Your task to perform on an android device: turn on priority inbox in the gmail app Image 0: 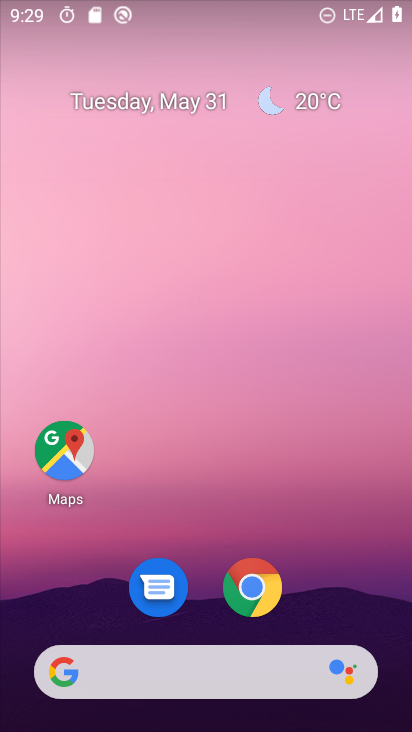
Step 0: drag from (205, 630) to (257, 189)
Your task to perform on an android device: turn on priority inbox in the gmail app Image 1: 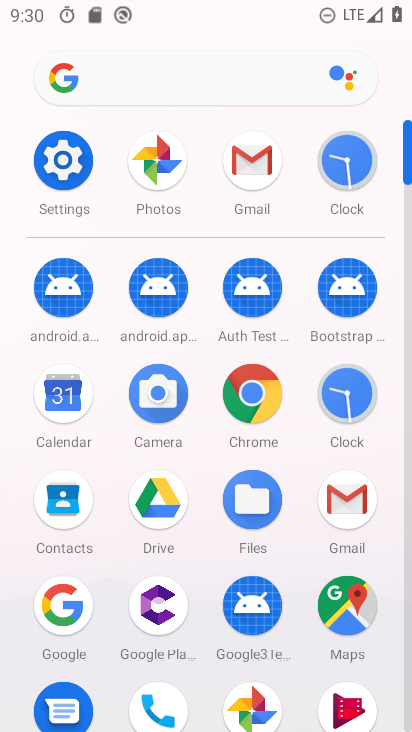
Step 1: click (268, 143)
Your task to perform on an android device: turn on priority inbox in the gmail app Image 2: 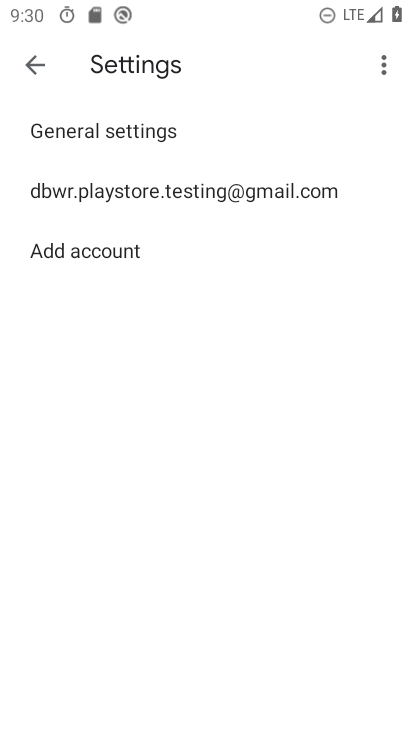
Step 2: click (37, 71)
Your task to perform on an android device: turn on priority inbox in the gmail app Image 3: 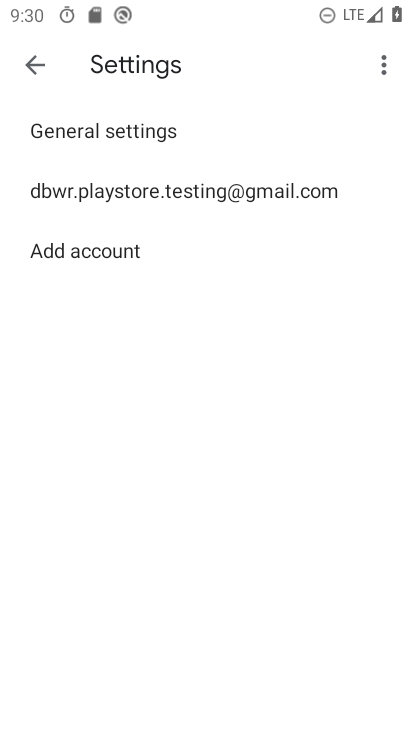
Step 3: click (37, 71)
Your task to perform on an android device: turn on priority inbox in the gmail app Image 4: 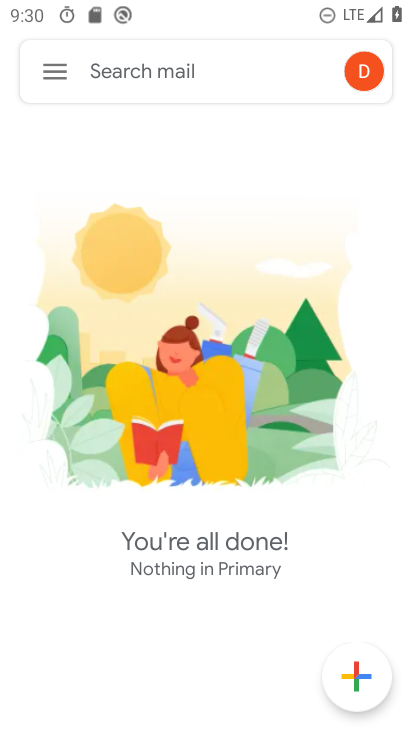
Step 4: click (55, 82)
Your task to perform on an android device: turn on priority inbox in the gmail app Image 5: 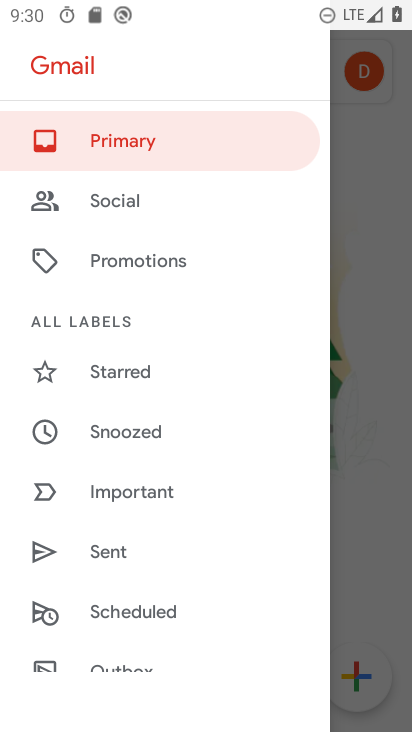
Step 5: drag from (99, 667) to (149, 196)
Your task to perform on an android device: turn on priority inbox in the gmail app Image 6: 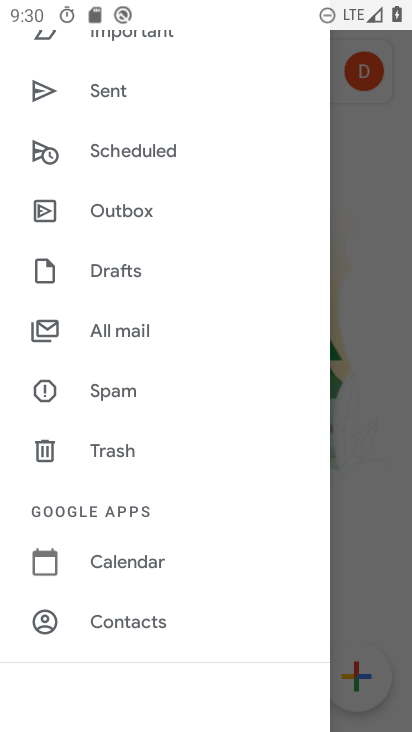
Step 6: drag from (89, 561) to (160, 40)
Your task to perform on an android device: turn on priority inbox in the gmail app Image 7: 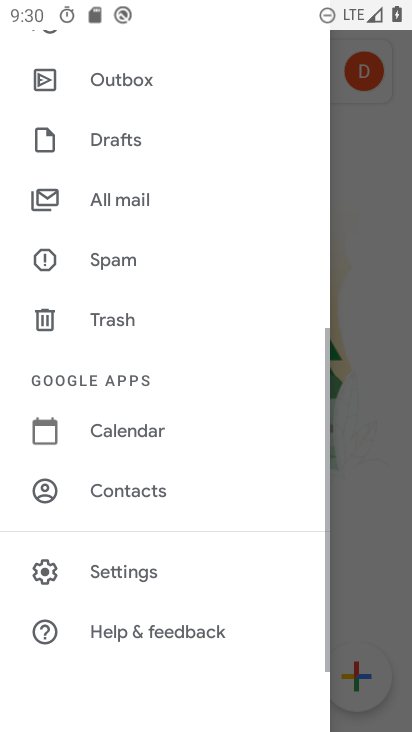
Step 7: click (128, 569)
Your task to perform on an android device: turn on priority inbox in the gmail app Image 8: 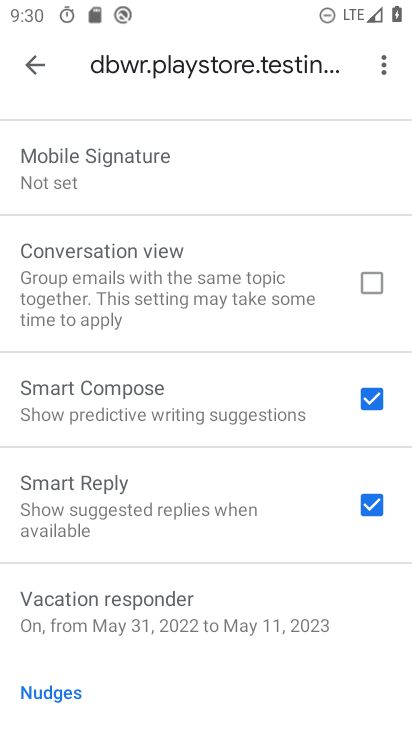
Step 8: drag from (177, 162) to (195, 717)
Your task to perform on an android device: turn on priority inbox in the gmail app Image 9: 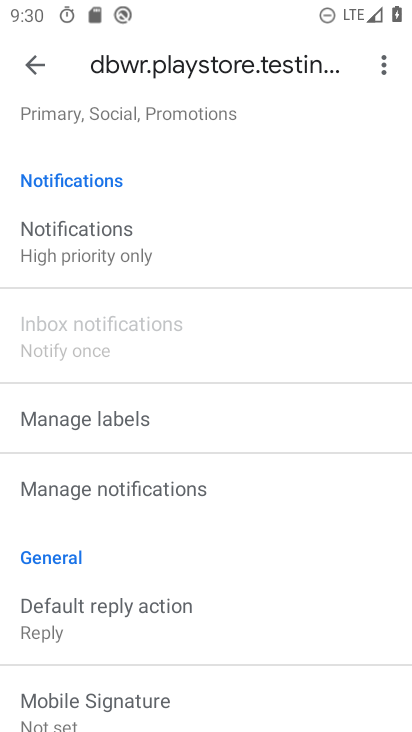
Step 9: drag from (145, 213) to (3, 383)
Your task to perform on an android device: turn on priority inbox in the gmail app Image 10: 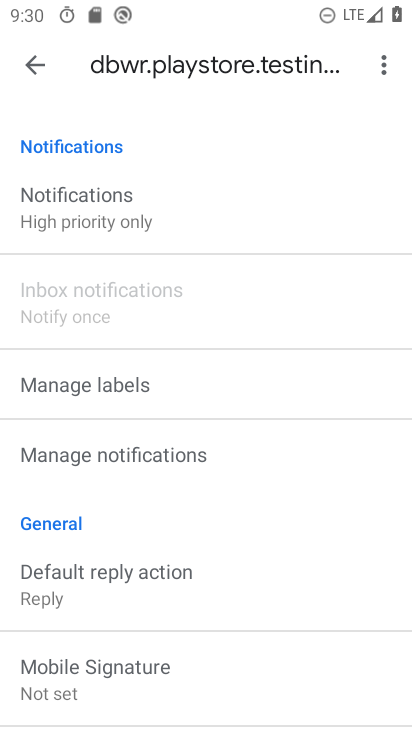
Step 10: click (188, 222)
Your task to perform on an android device: turn on priority inbox in the gmail app Image 11: 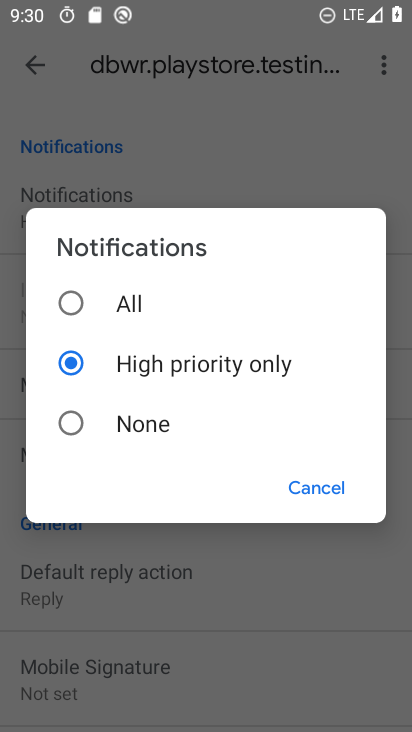
Step 11: task complete